Your task to perform on an android device: change alarm snooze length Image 0: 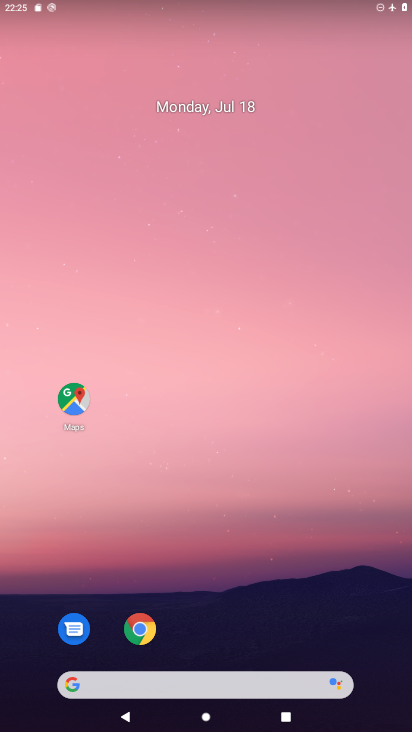
Step 0: drag from (260, 208) to (231, 1)
Your task to perform on an android device: change alarm snooze length Image 1: 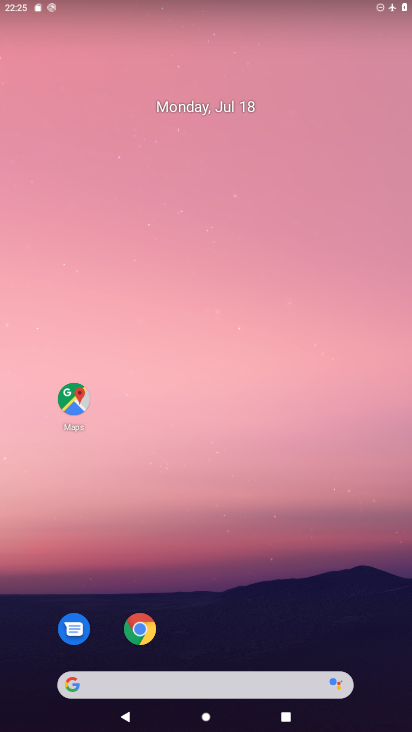
Step 1: drag from (270, 634) to (226, 120)
Your task to perform on an android device: change alarm snooze length Image 2: 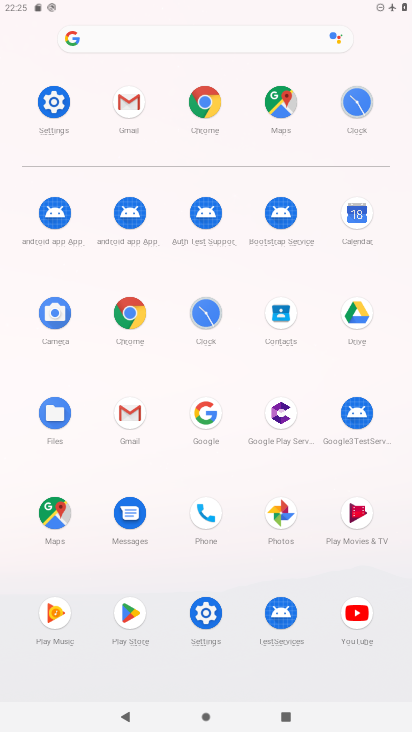
Step 2: click (211, 317)
Your task to perform on an android device: change alarm snooze length Image 3: 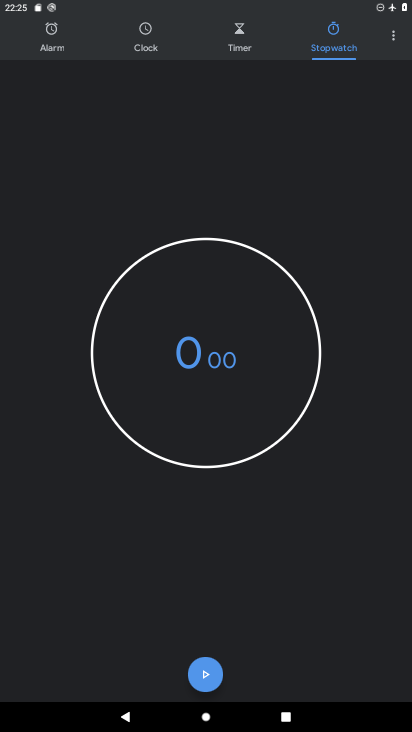
Step 3: click (389, 36)
Your task to perform on an android device: change alarm snooze length Image 4: 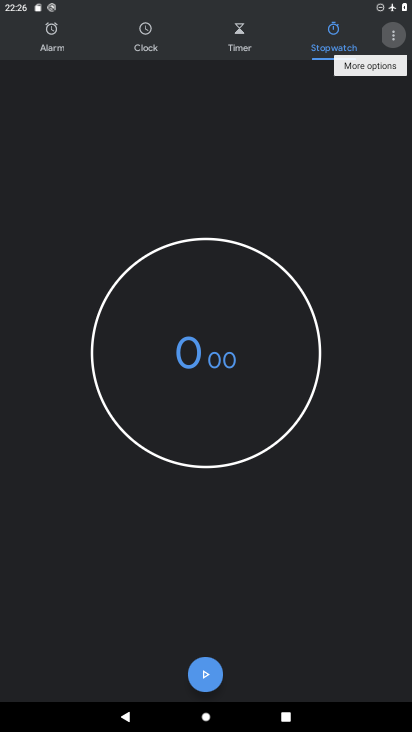
Step 4: click (389, 36)
Your task to perform on an android device: change alarm snooze length Image 5: 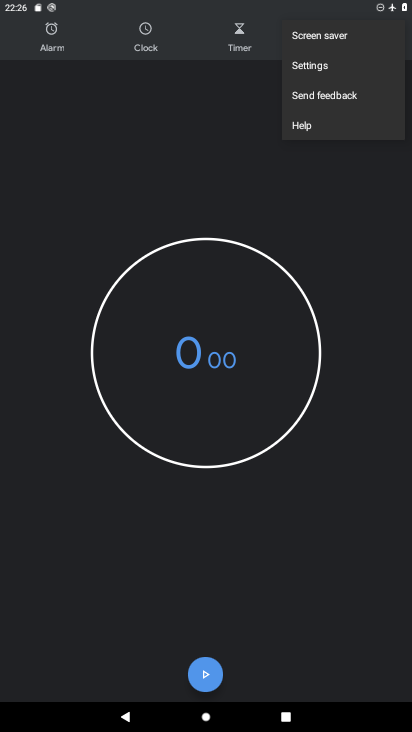
Step 5: click (338, 69)
Your task to perform on an android device: change alarm snooze length Image 6: 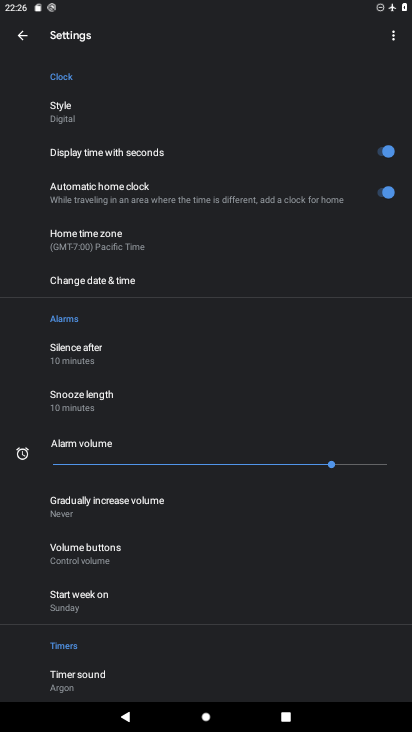
Step 6: click (128, 399)
Your task to perform on an android device: change alarm snooze length Image 7: 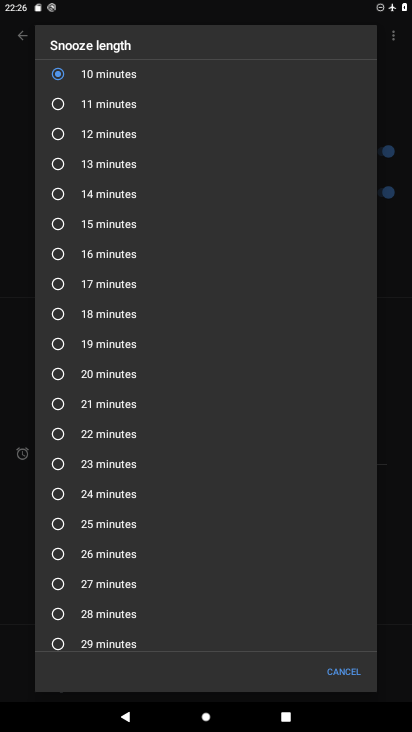
Step 7: click (109, 103)
Your task to perform on an android device: change alarm snooze length Image 8: 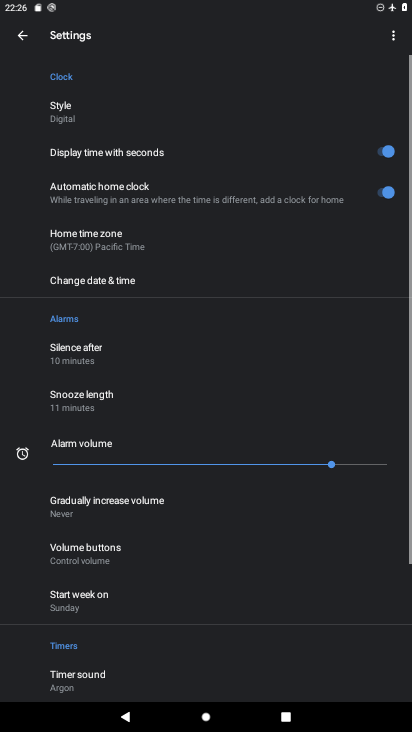
Step 8: task complete